Your task to perform on an android device: toggle translation in the chrome app Image 0: 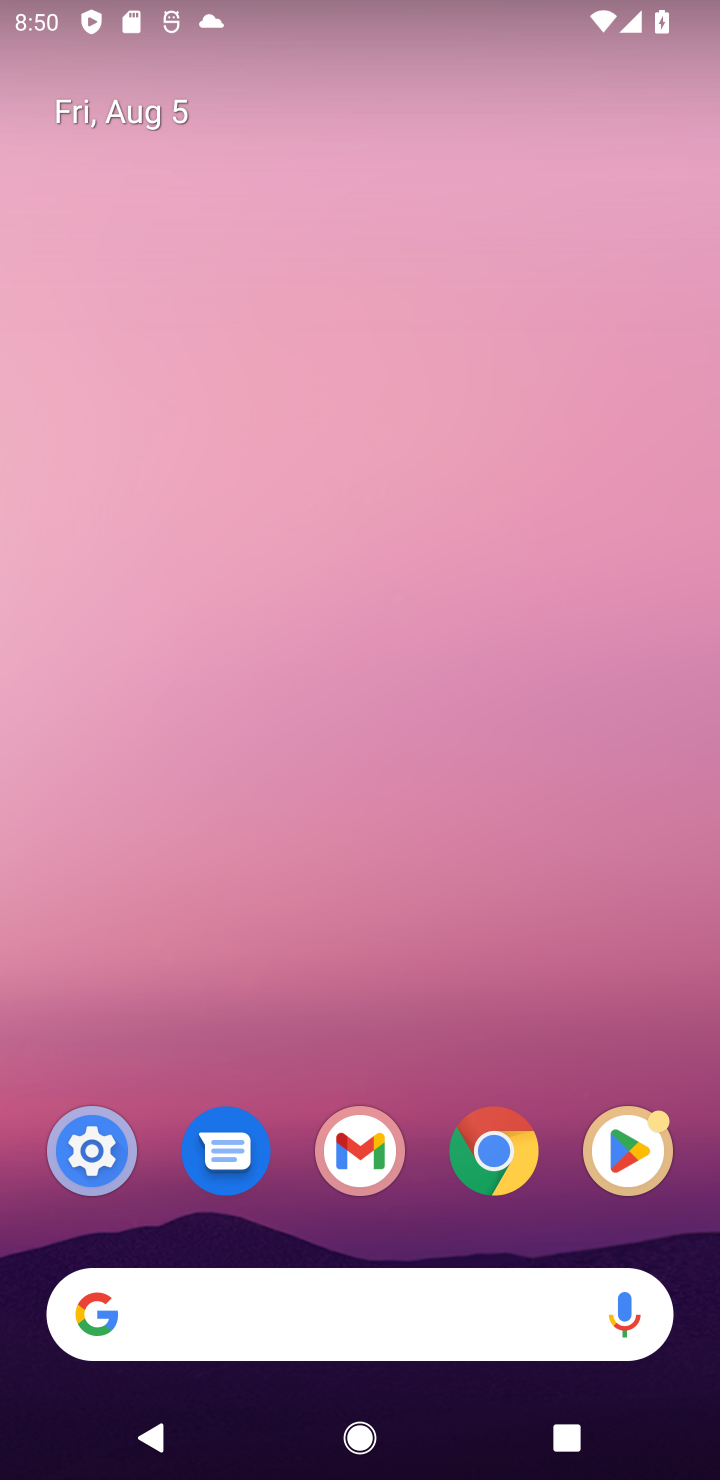
Step 0: click (396, 1190)
Your task to perform on an android device: toggle translation in the chrome app Image 1: 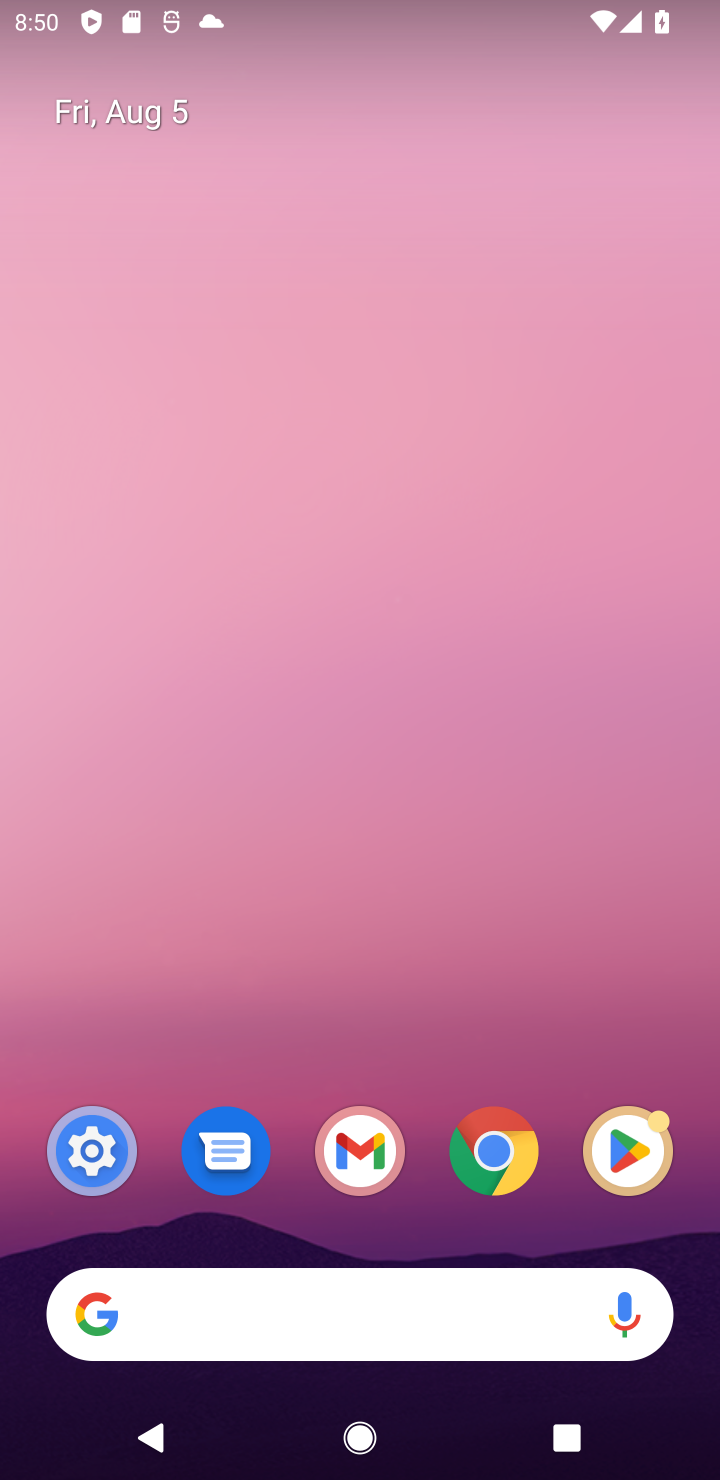
Step 1: click (503, 1163)
Your task to perform on an android device: toggle translation in the chrome app Image 2: 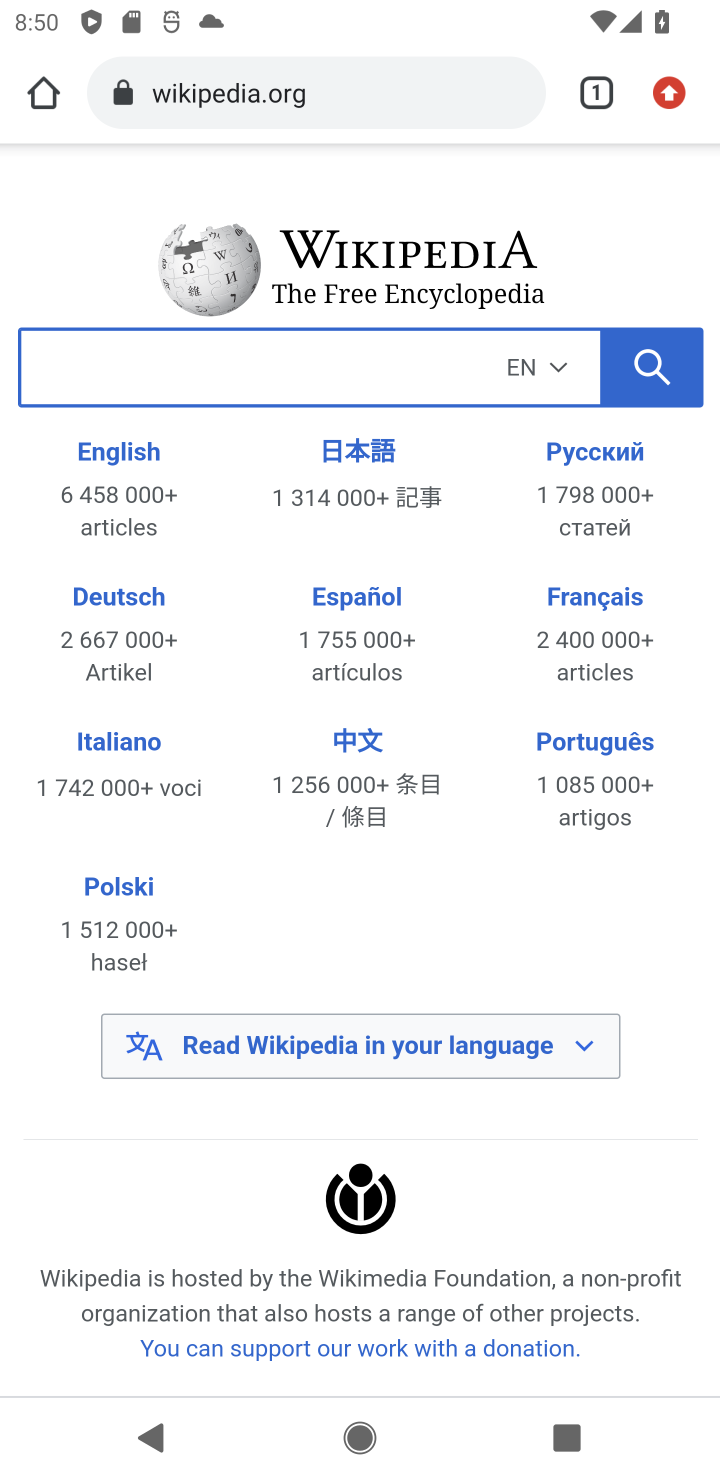
Step 2: click (673, 103)
Your task to perform on an android device: toggle translation in the chrome app Image 3: 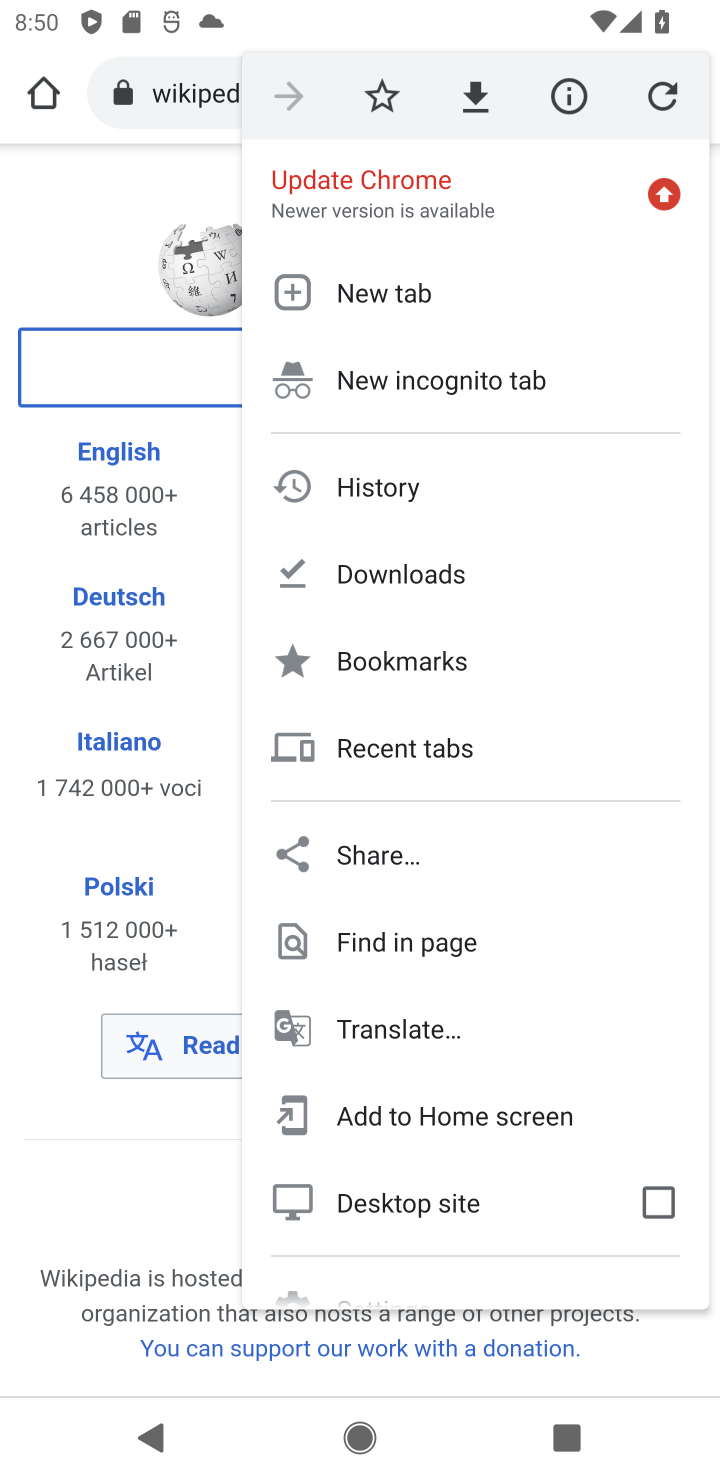
Step 3: drag from (453, 660) to (481, 465)
Your task to perform on an android device: toggle translation in the chrome app Image 4: 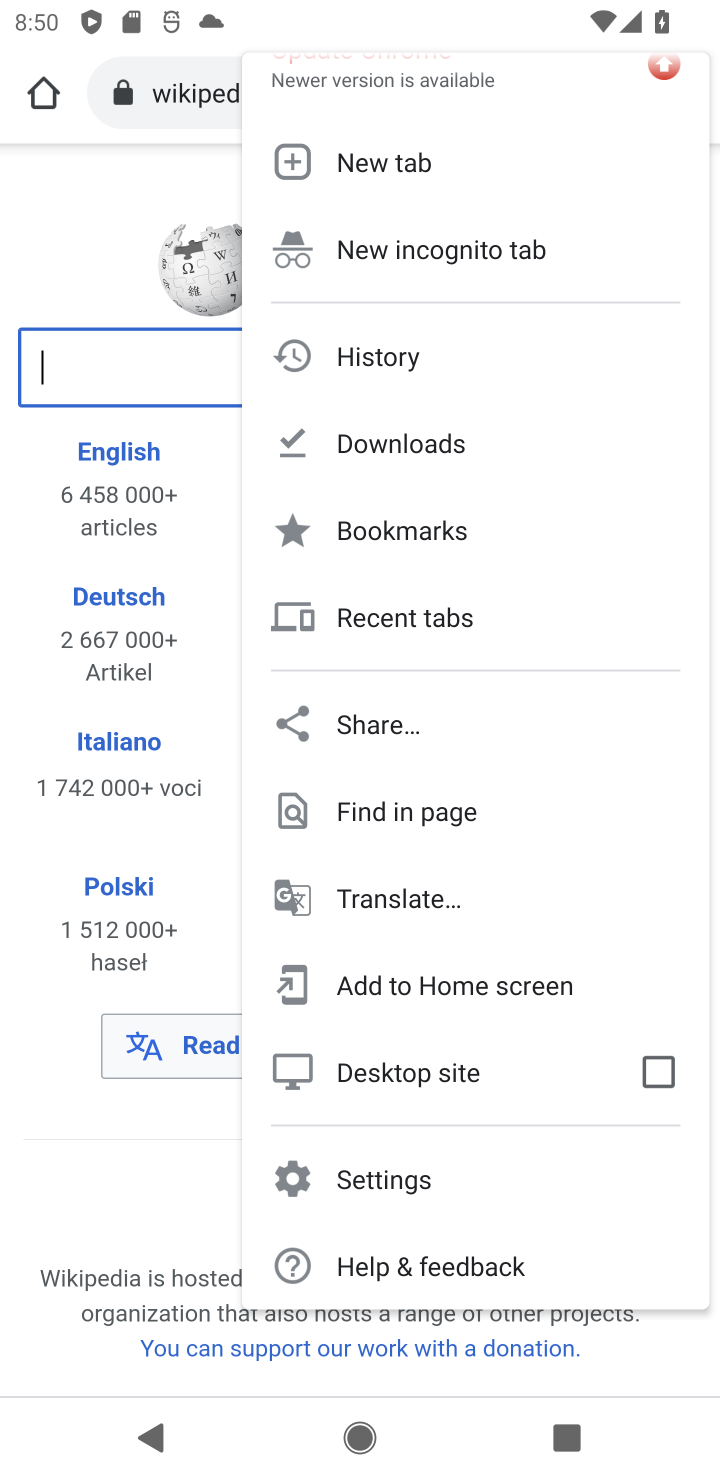
Step 4: click (360, 1174)
Your task to perform on an android device: toggle translation in the chrome app Image 5: 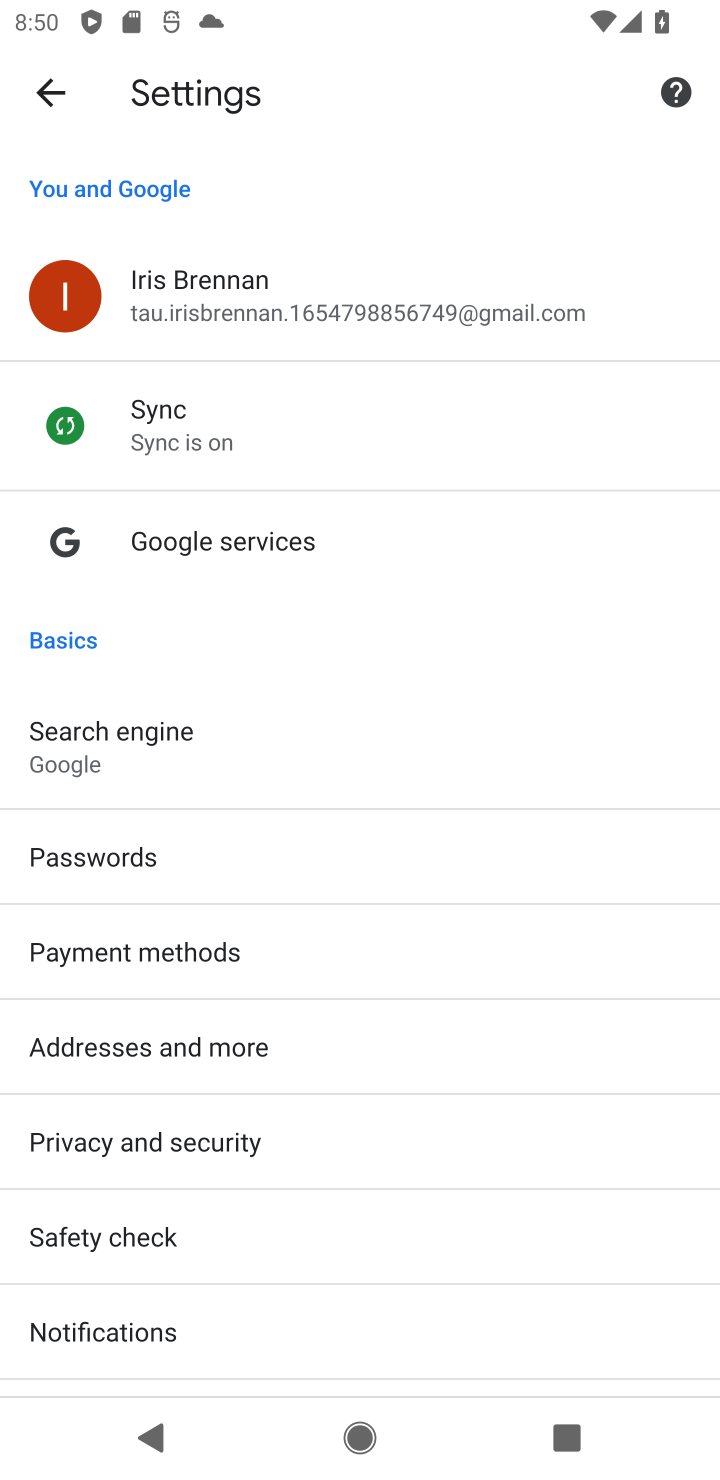
Step 5: drag from (266, 1228) to (255, 765)
Your task to perform on an android device: toggle translation in the chrome app Image 6: 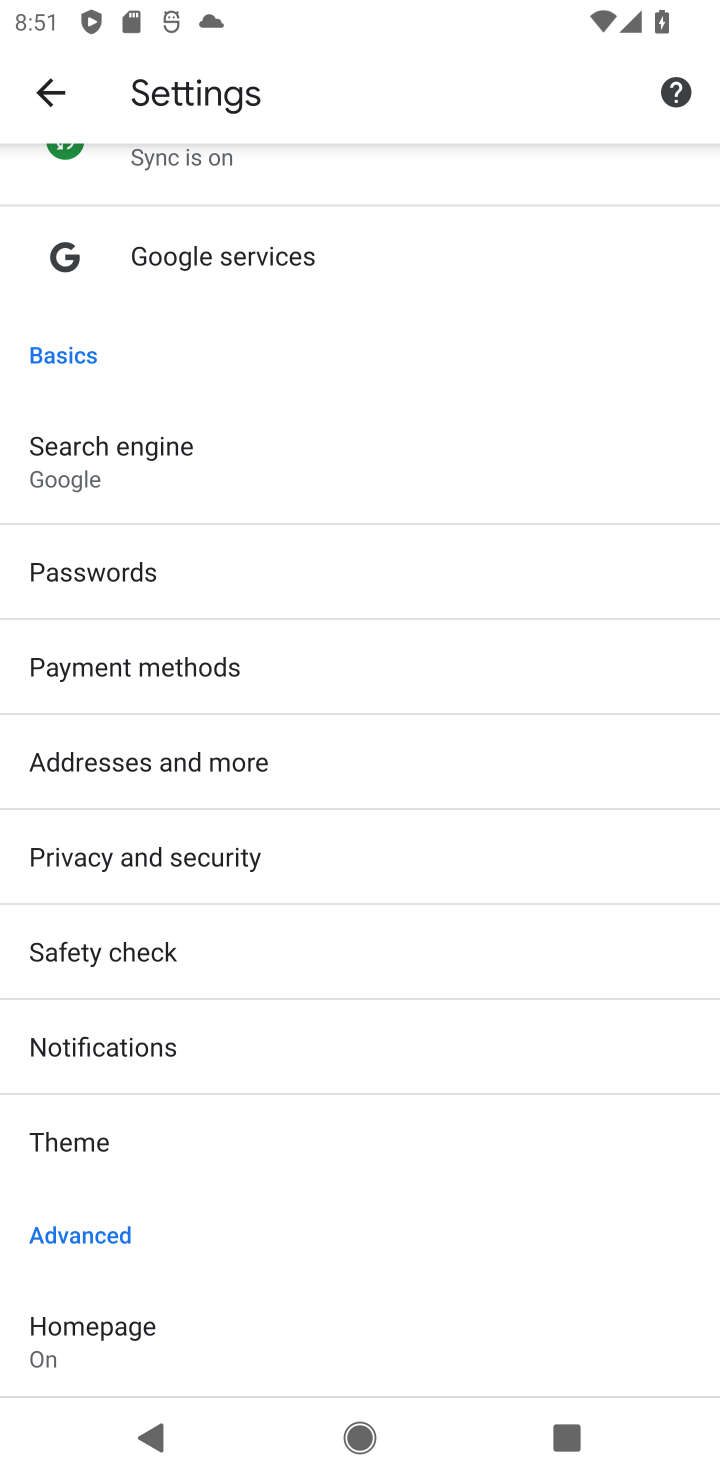
Step 6: drag from (338, 1005) to (309, 374)
Your task to perform on an android device: toggle translation in the chrome app Image 7: 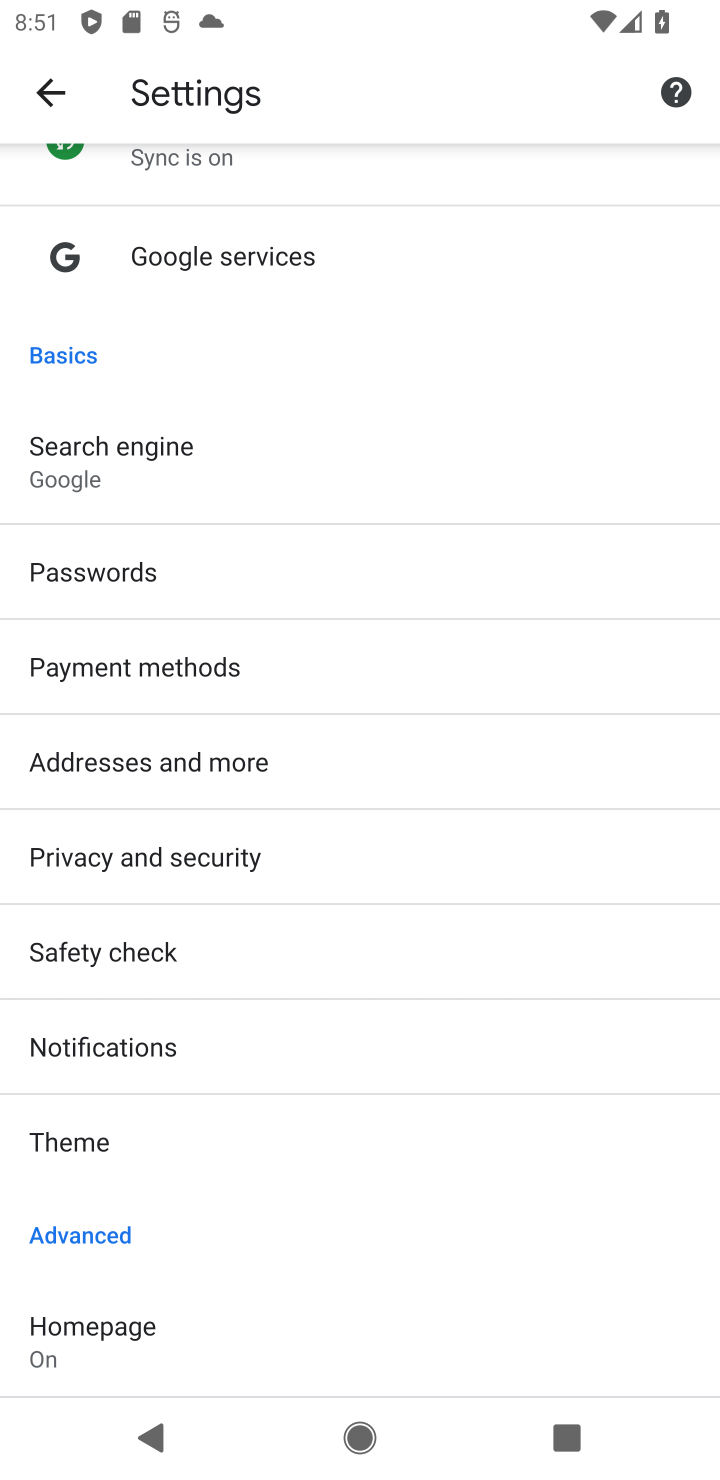
Step 7: drag from (219, 1207) to (294, 340)
Your task to perform on an android device: toggle translation in the chrome app Image 8: 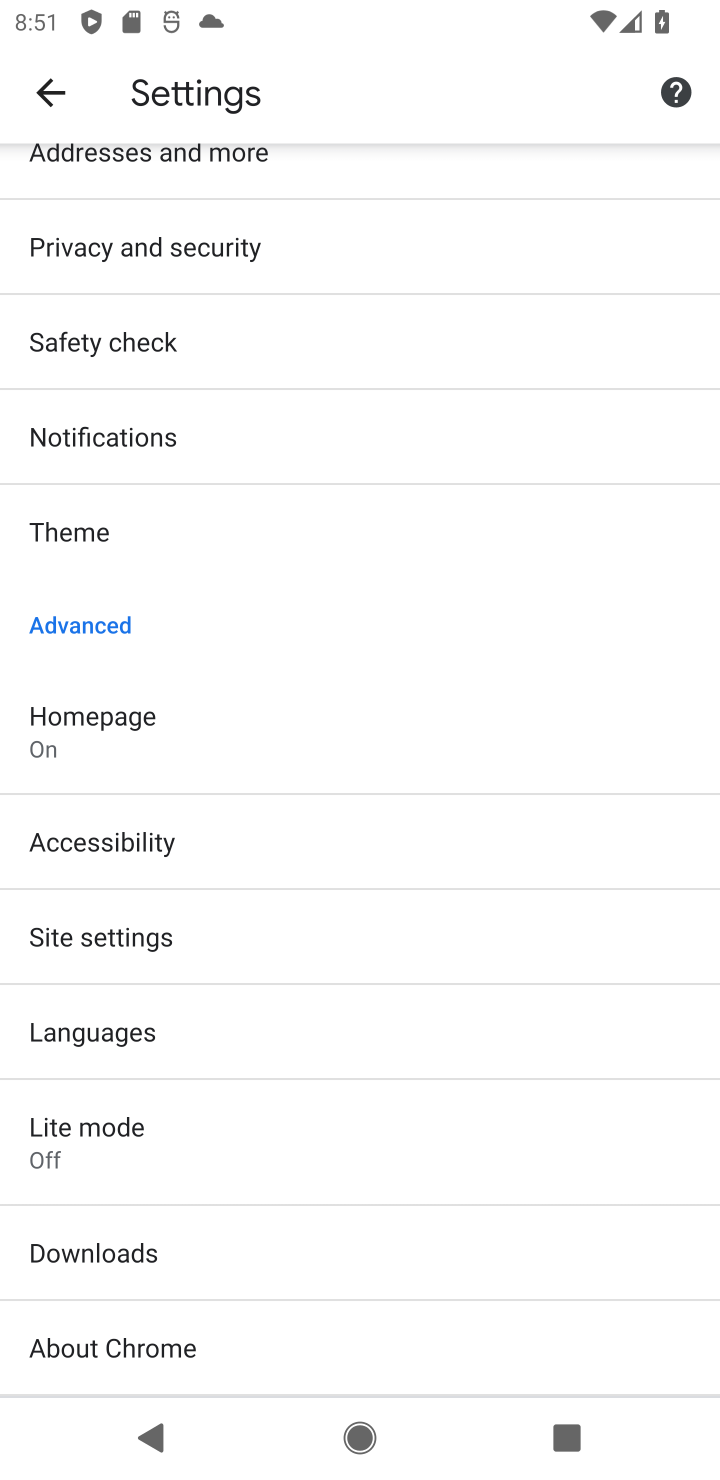
Step 8: click (111, 1038)
Your task to perform on an android device: toggle translation in the chrome app Image 9: 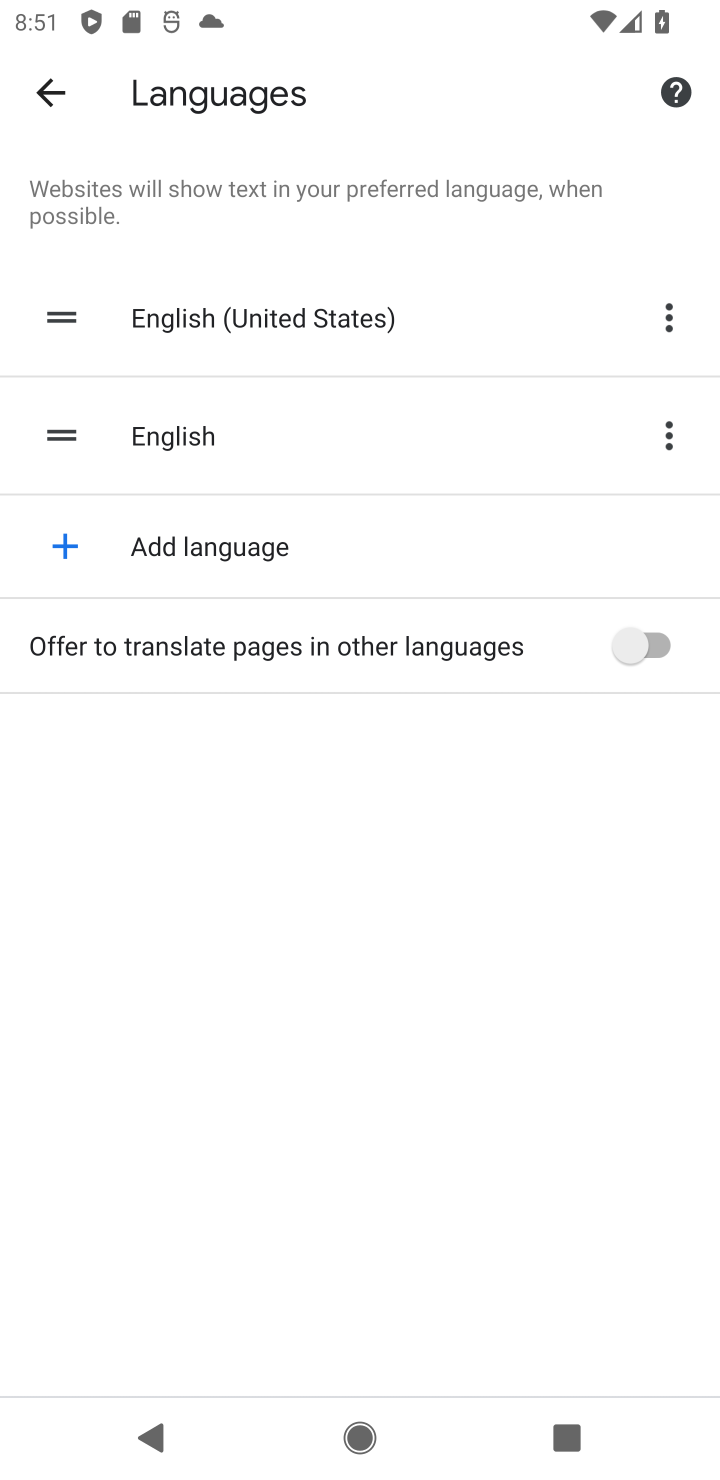
Step 9: click (678, 642)
Your task to perform on an android device: toggle translation in the chrome app Image 10: 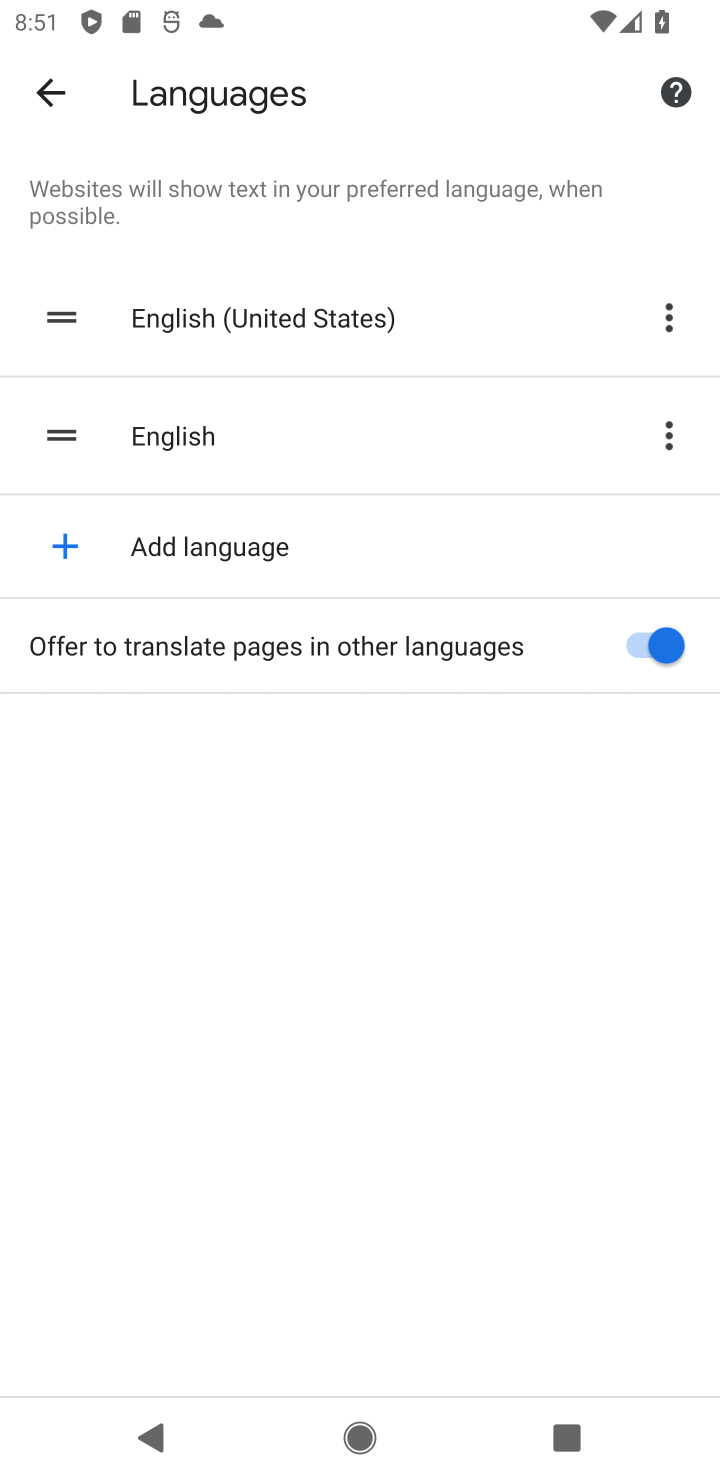
Step 10: task complete